Your task to perform on an android device: stop showing notifications on the lock screen Image 0: 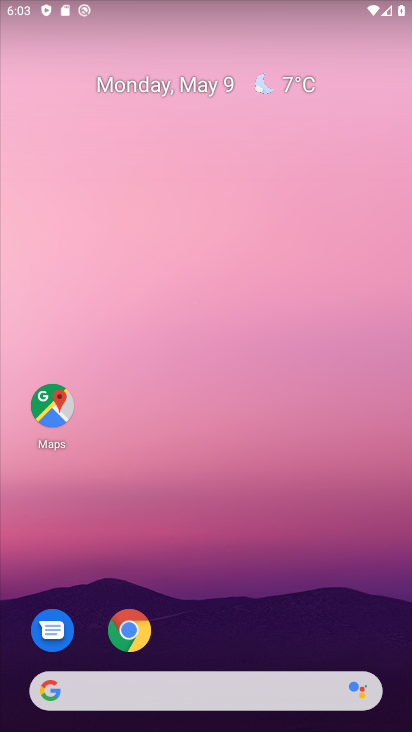
Step 0: drag from (272, 617) to (198, 33)
Your task to perform on an android device: stop showing notifications on the lock screen Image 1: 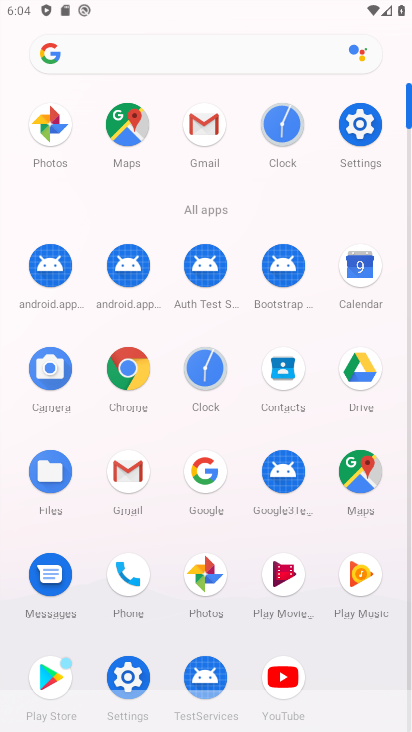
Step 1: click (122, 688)
Your task to perform on an android device: stop showing notifications on the lock screen Image 2: 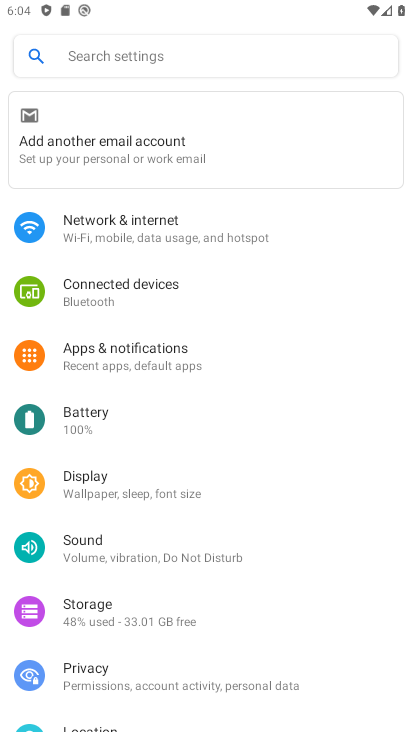
Step 2: drag from (138, 661) to (188, 539)
Your task to perform on an android device: stop showing notifications on the lock screen Image 3: 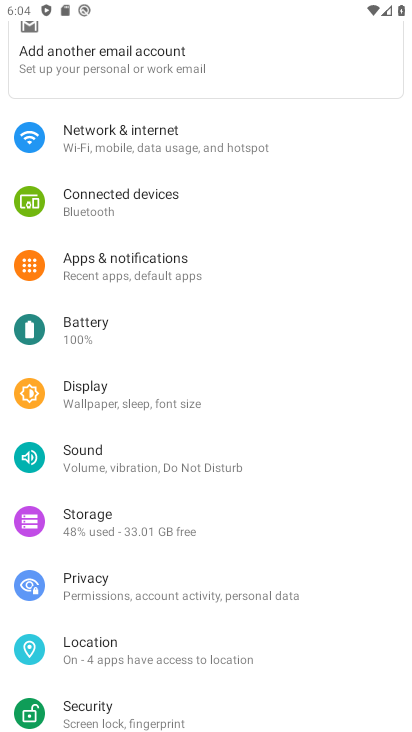
Step 3: click (154, 258)
Your task to perform on an android device: stop showing notifications on the lock screen Image 4: 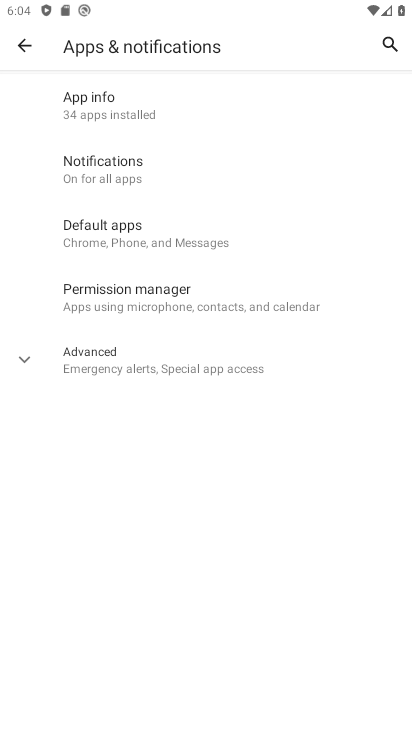
Step 4: click (98, 180)
Your task to perform on an android device: stop showing notifications on the lock screen Image 5: 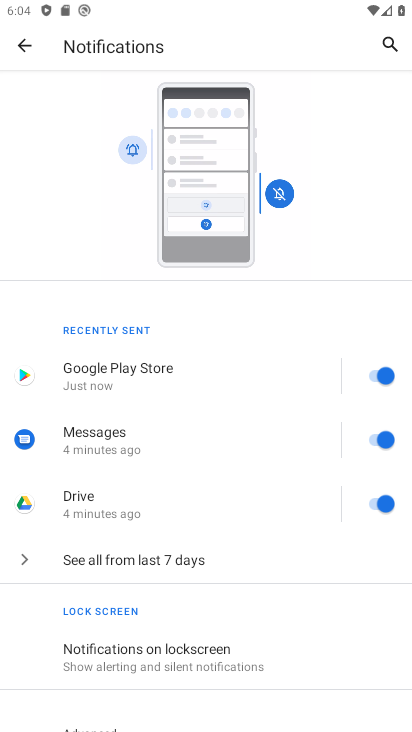
Step 5: click (176, 662)
Your task to perform on an android device: stop showing notifications on the lock screen Image 6: 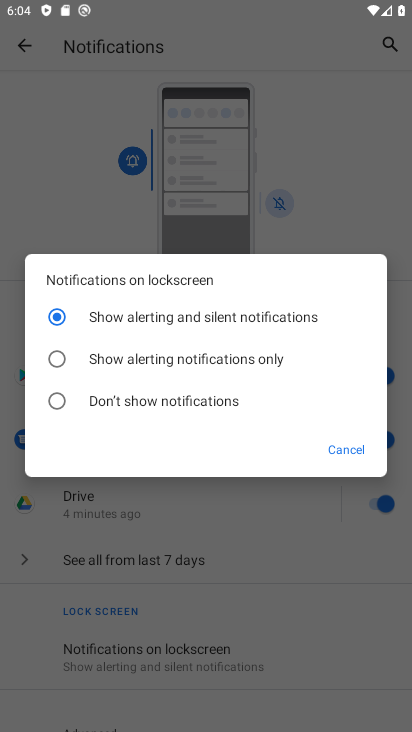
Step 6: click (50, 411)
Your task to perform on an android device: stop showing notifications on the lock screen Image 7: 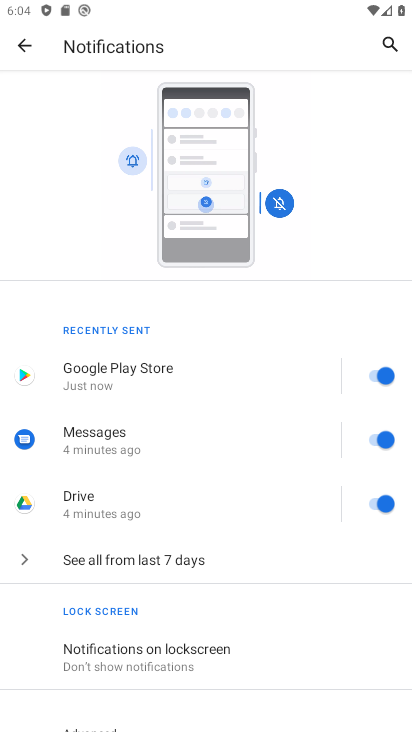
Step 7: task complete